Your task to perform on an android device: toggle sleep mode Image 0: 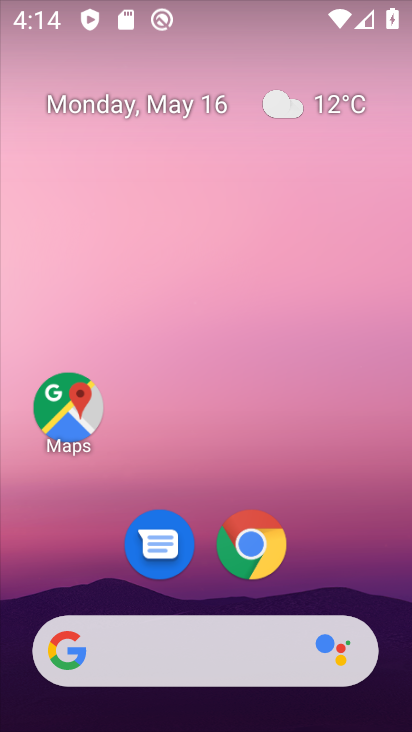
Step 0: drag from (325, 555) to (256, 86)
Your task to perform on an android device: toggle sleep mode Image 1: 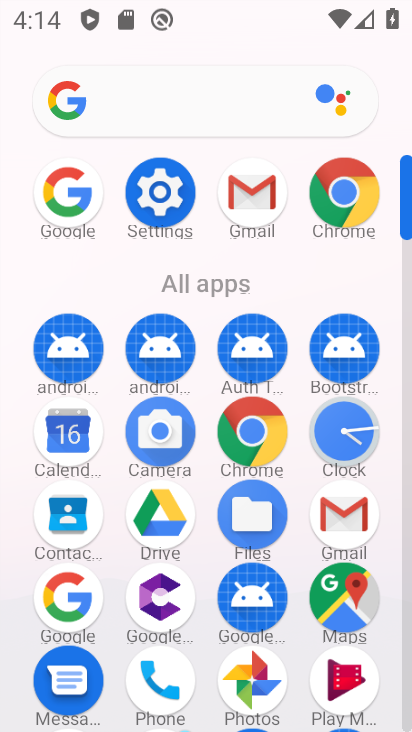
Step 1: click (162, 192)
Your task to perform on an android device: toggle sleep mode Image 2: 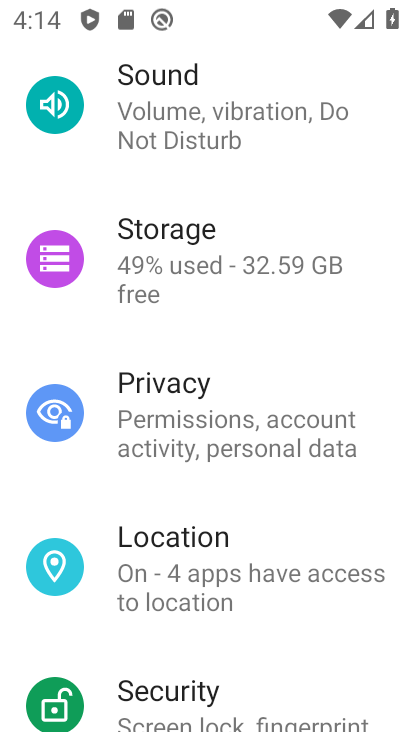
Step 2: drag from (213, 286) to (232, 430)
Your task to perform on an android device: toggle sleep mode Image 3: 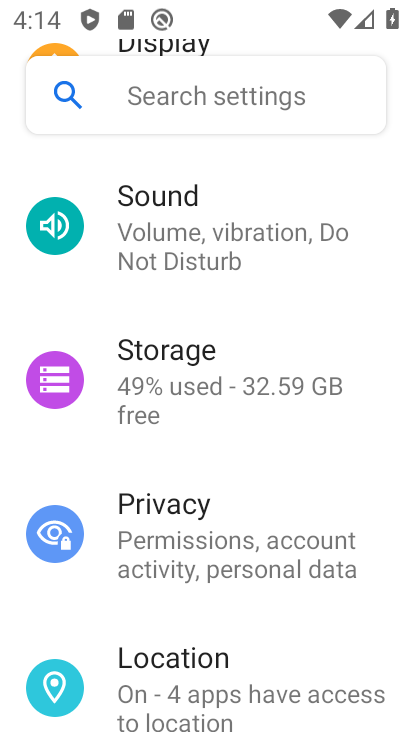
Step 3: drag from (246, 241) to (256, 480)
Your task to perform on an android device: toggle sleep mode Image 4: 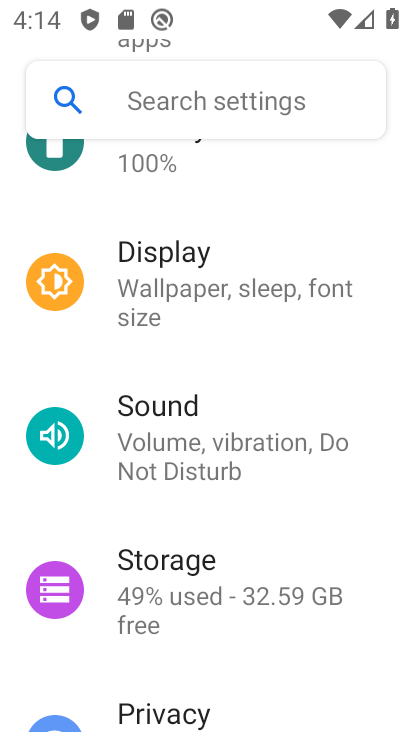
Step 4: click (282, 280)
Your task to perform on an android device: toggle sleep mode Image 5: 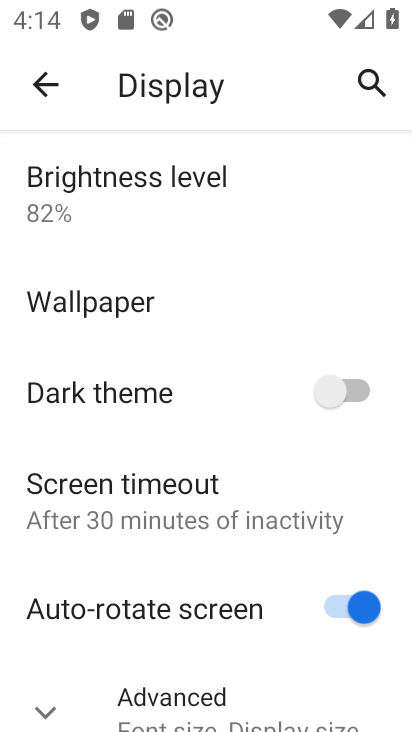
Step 5: click (157, 473)
Your task to perform on an android device: toggle sleep mode Image 6: 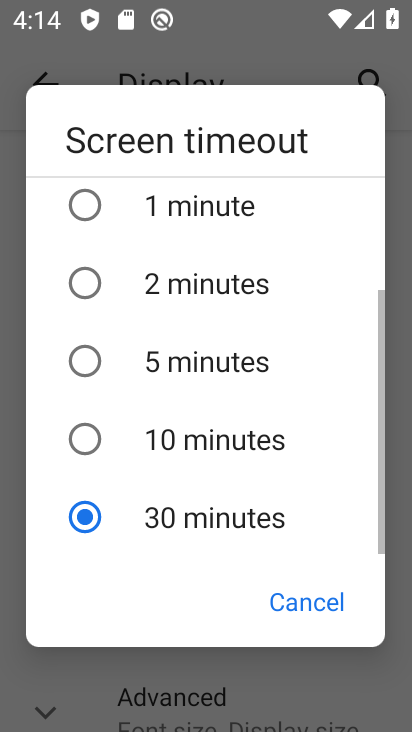
Step 6: click (154, 271)
Your task to perform on an android device: toggle sleep mode Image 7: 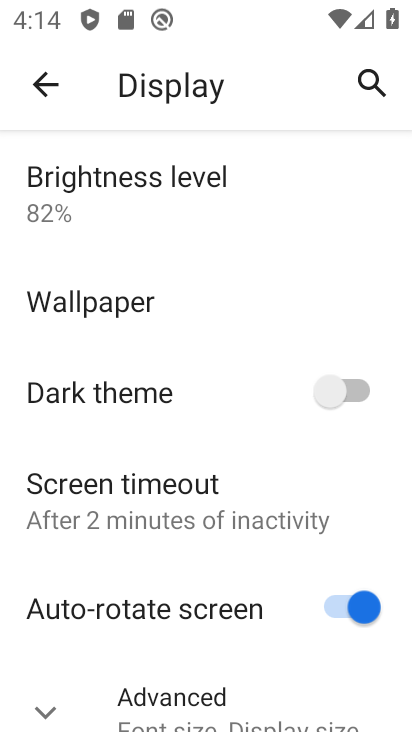
Step 7: drag from (148, 514) to (187, 393)
Your task to perform on an android device: toggle sleep mode Image 8: 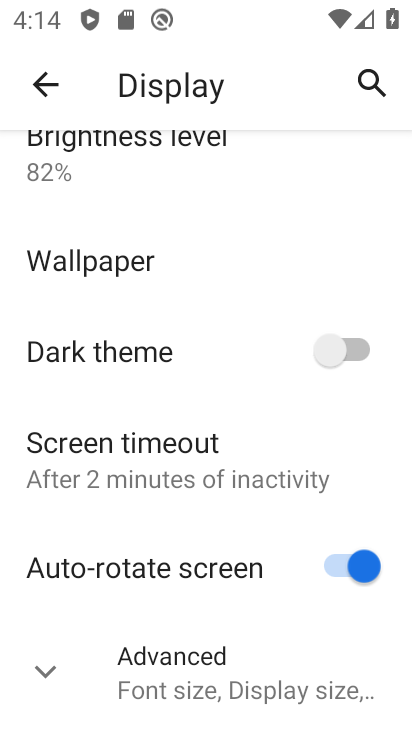
Step 8: click (177, 656)
Your task to perform on an android device: toggle sleep mode Image 9: 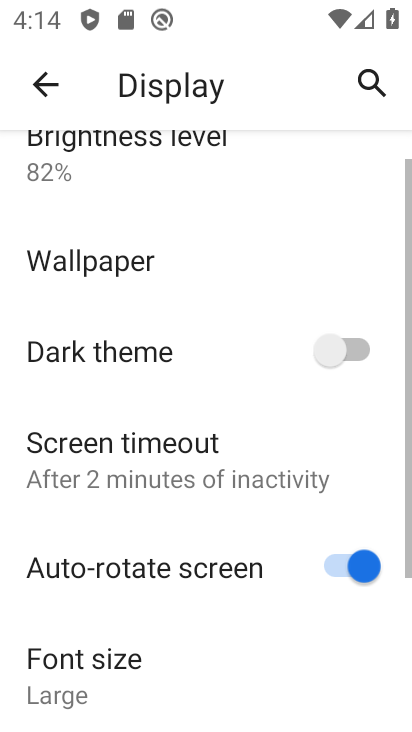
Step 9: task complete